Your task to perform on an android device: Clear all items from cart on ebay. Add razer blade to the cart on ebay, then select checkout. Image 0: 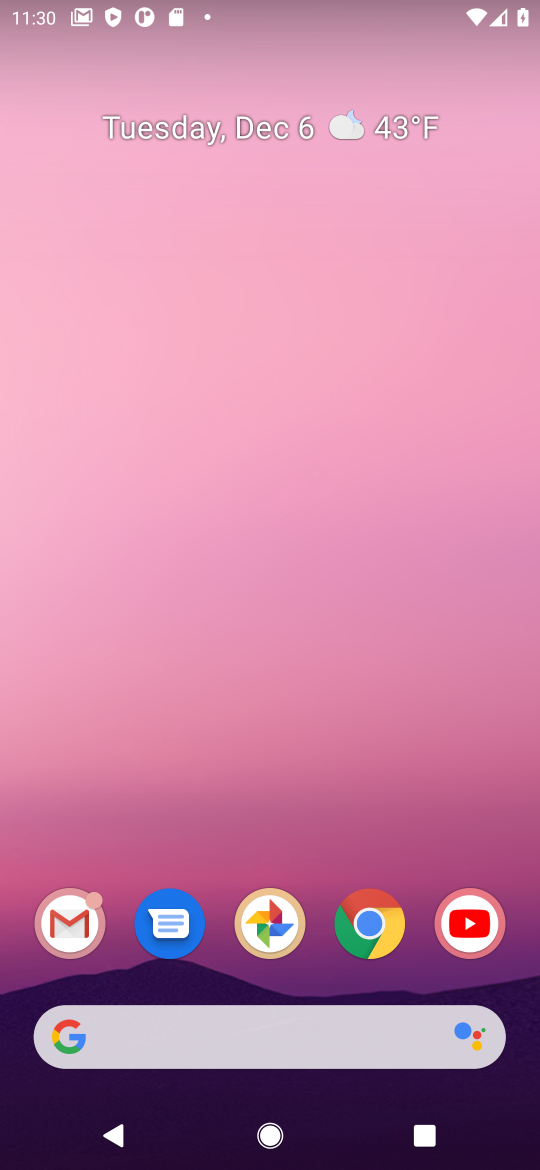
Step 0: click (368, 915)
Your task to perform on an android device: Clear all items from cart on ebay. Add razer blade to the cart on ebay, then select checkout. Image 1: 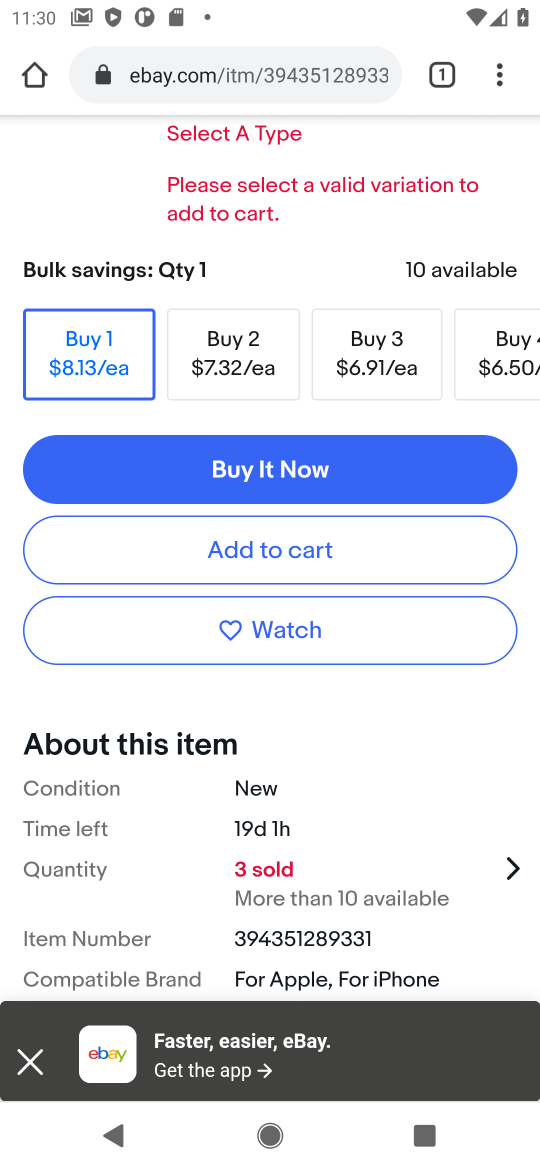
Step 1: drag from (443, 132) to (378, 1026)
Your task to perform on an android device: Clear all items from cart on ebay. Add razer blade to the cart on ebay, then select checkout. Image 2: 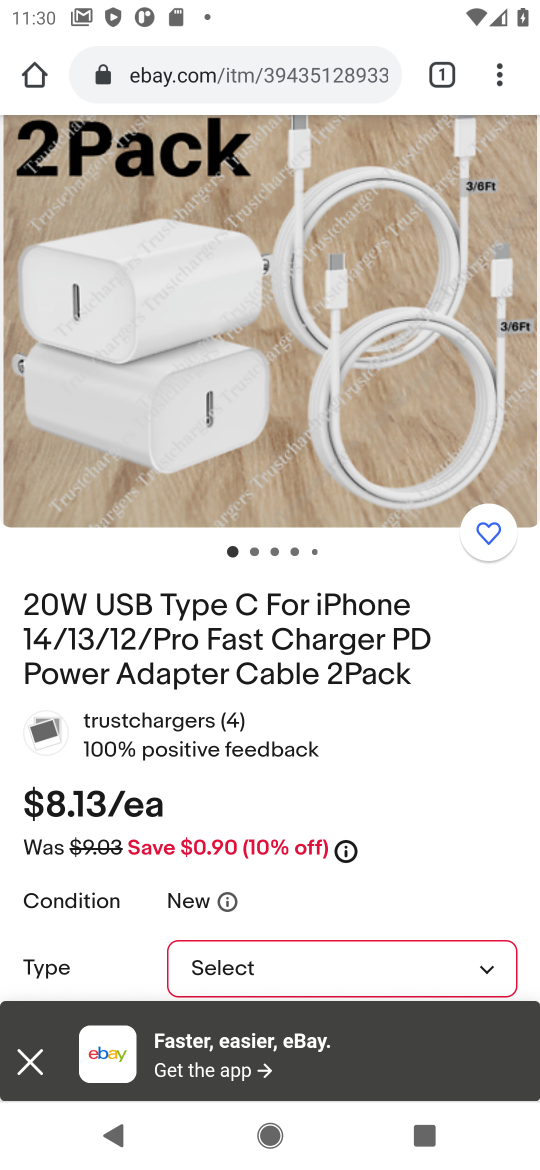
Step 2: drag from (442, 136) to (438, 887)
Your task to perform on an android device: Clear all items from cart on ebay. Add razer blade to the cart on ebay, then select checkout. Image 3: 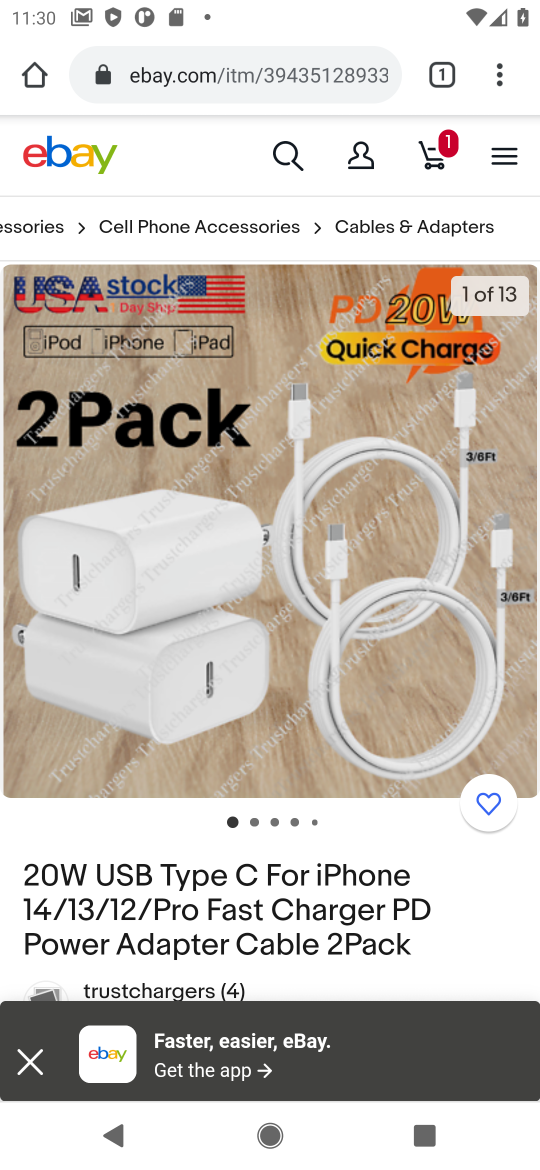
Step 3: click (440, 151)
Your task to perform on an android device: Clear all items from cart on ebay. Add razer blade to the cart on ebay, then select checkout. Image 4: 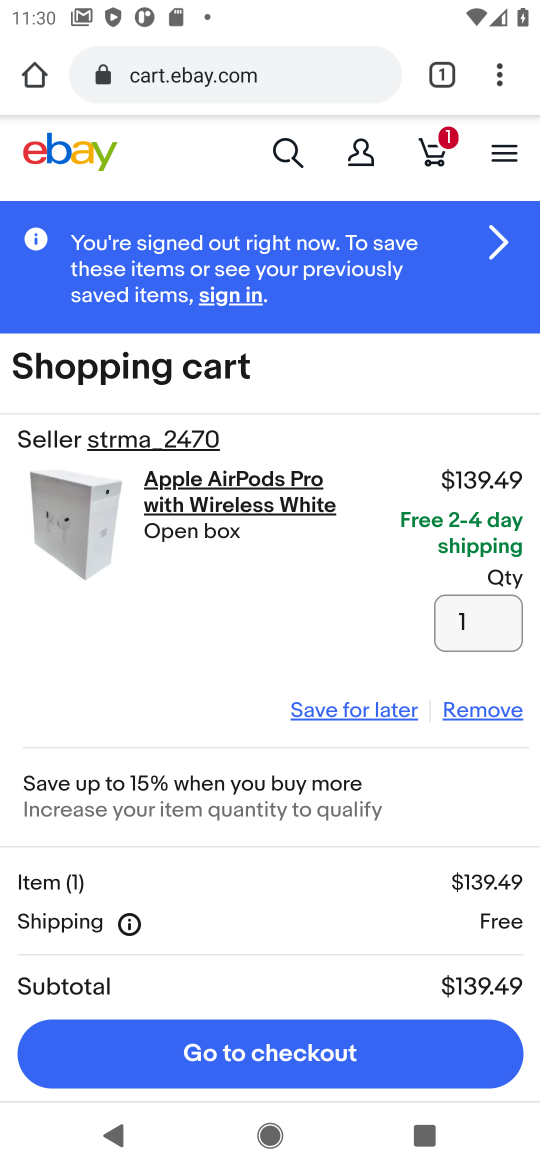
Step 4: click (470, 709)
Your task to perform on an android device: Clear all items from cart on ebay. Add razer blade to the cart on ebay, then select checkout. Image 5: 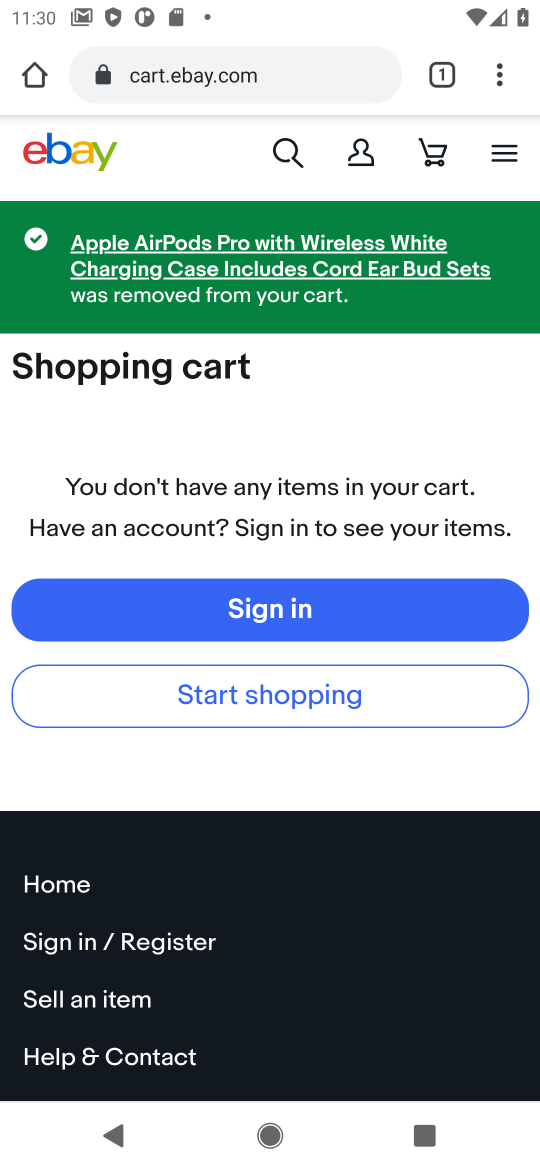
Step 5: click (290, 155)
Your task to perform on an android device: Clear all items from cart on ebay. Add razer blade to the cart on ebay, then select checkout. Image 6: 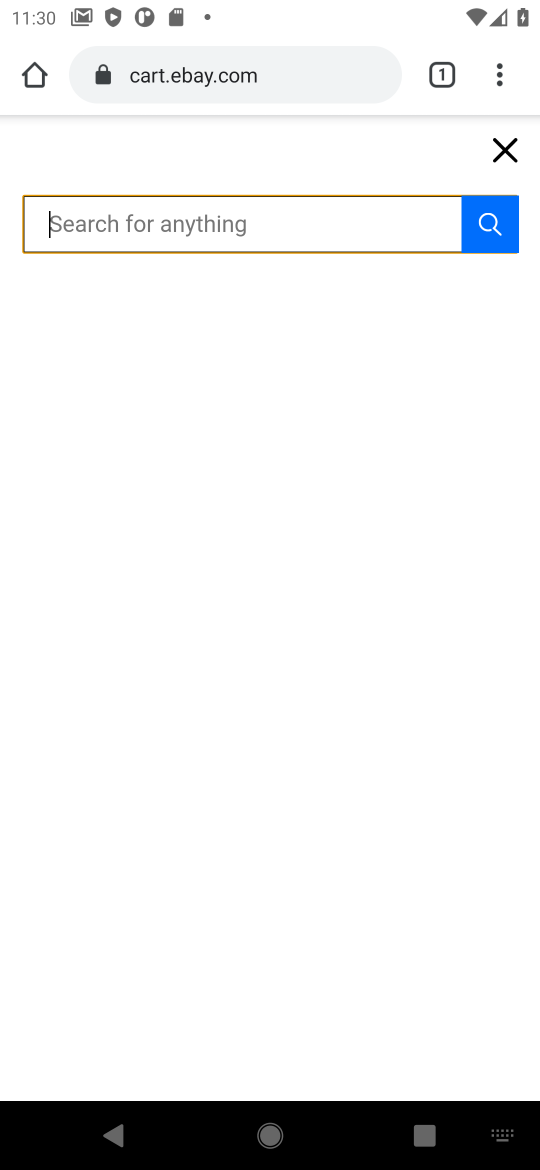
Step 6: type "razer blade"
Your task to perform on an android device: Clear all items from cart on ebay. Add razer blade to the cart on ebay, then select checkout. Image 7: 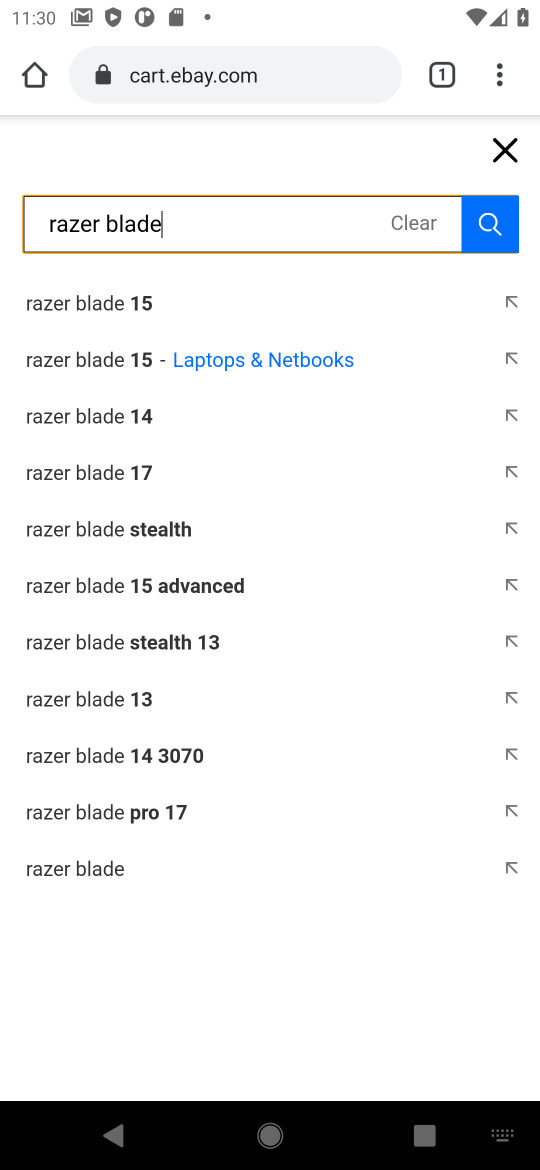
Step 7: click (68, 296)
Your task to perform on an android device: Clear all items from cart on ebay. Add razer blade to the cart on ebay, then select checkout. Image 8: 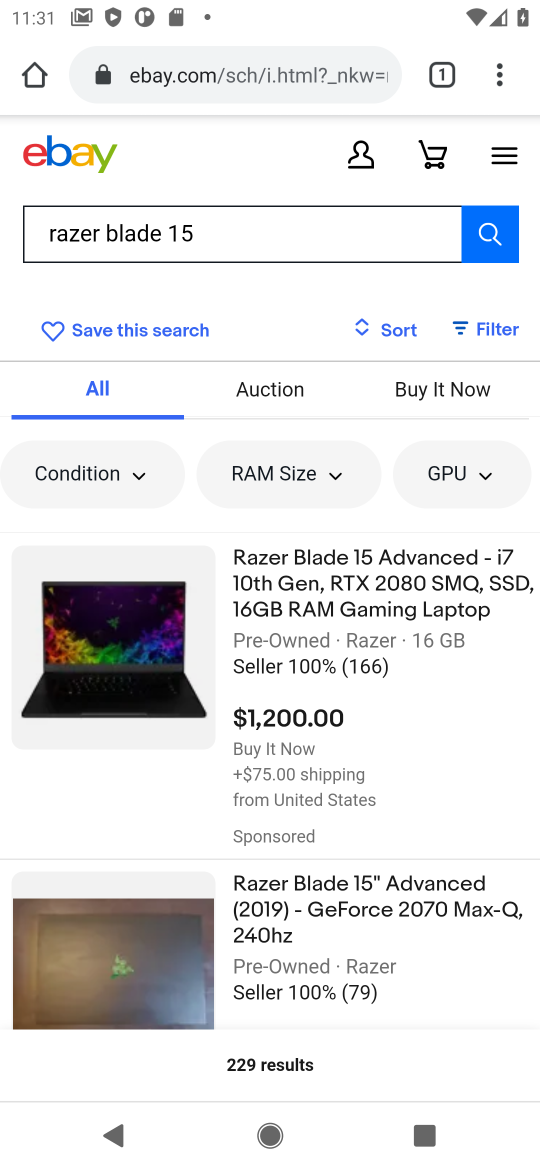
Step 8: click (287, 649)
Your task to perform on an android device: Clear all items from cart on ebay. Add razer blade to the cart on ebay, then select checkout. Image 9: 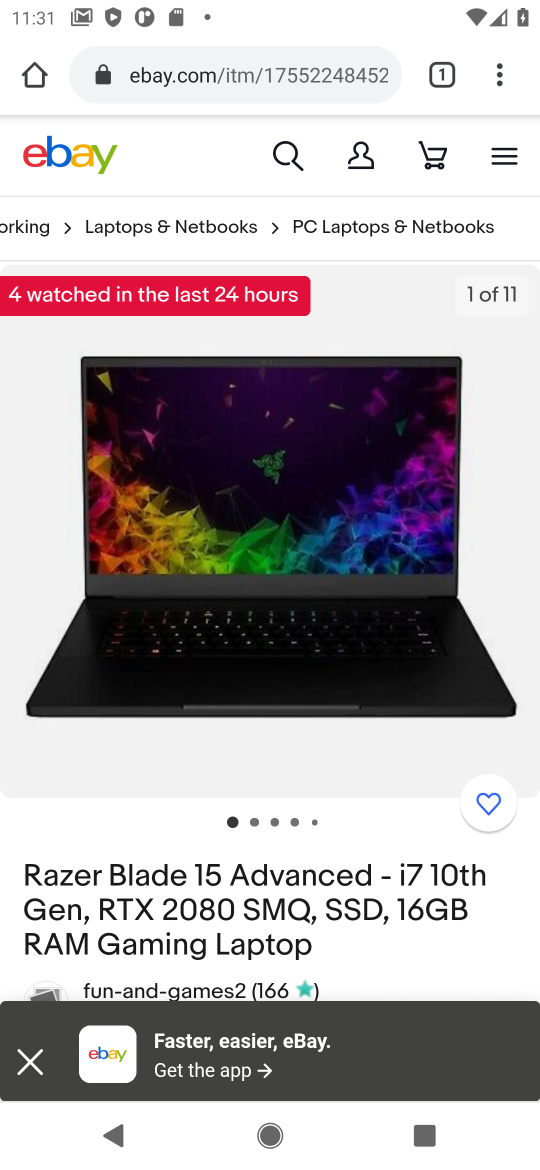
Step 9: drag from (290, 959) to (282, 185)
Your task to perform on an android device: Clear all items from cart on ebay. Add razer blade to the cart on ebay, then select checkout. Image 10: 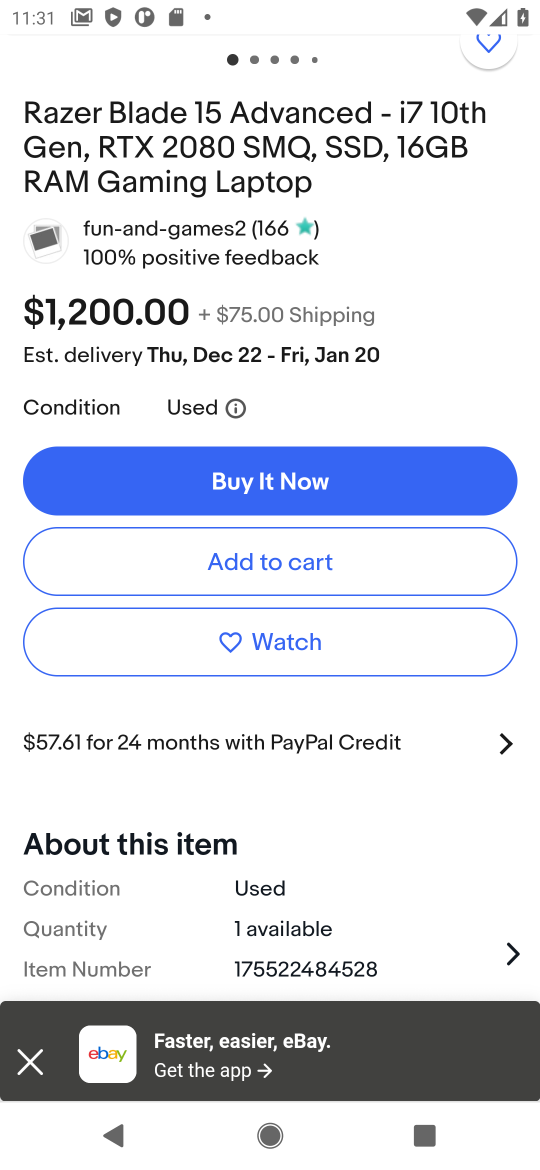
Step 10: click (258, 555)
Your task to perform on an android device: Clear all items from cart on ebay. Add razer blade to the cart on ebay, then select checkout. Image 11: 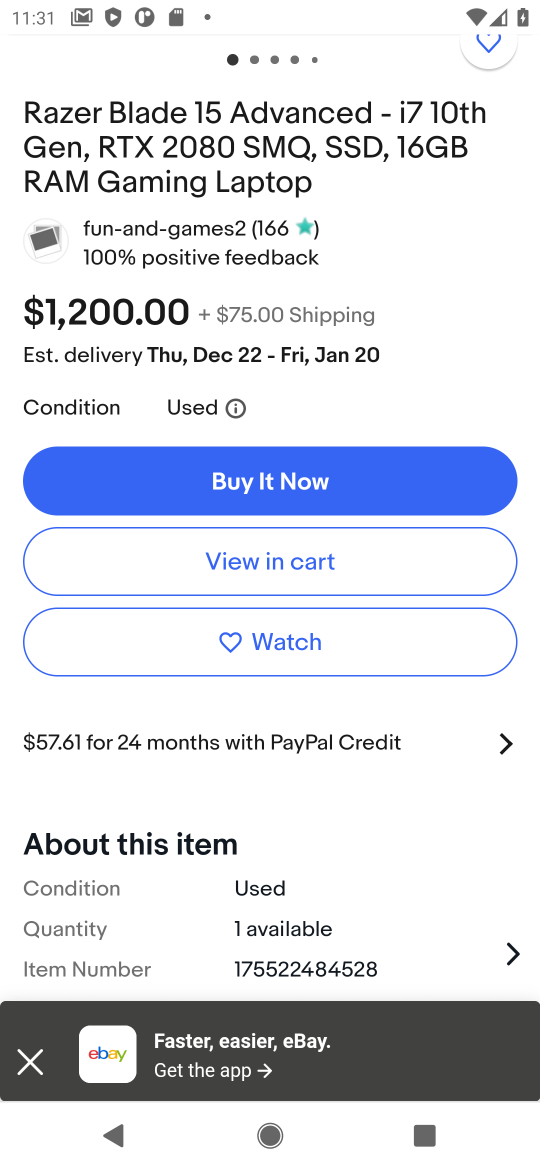
Step 11: click (258, 555)
Your task to perform on an android device: Clear all items from cart on ebay. Add razer blade to the cart on ebay, then select checkout. Image 12: 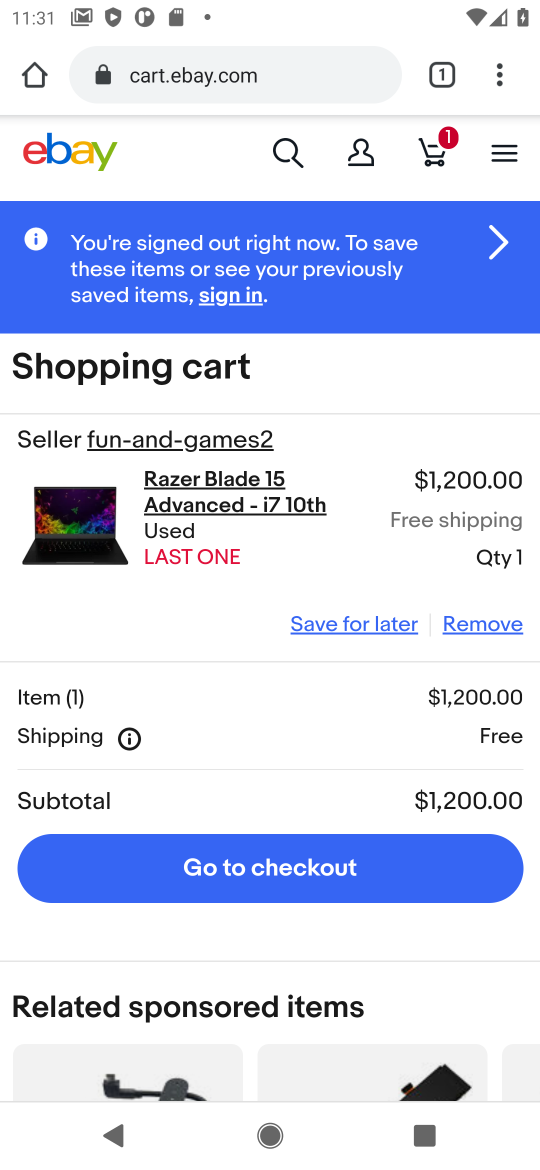
Step 12: click (190, 871)
Your task to perform on an android device: Clear all items from cart on ebay. Add razer blade to the cart on ebay, then select checkout. Image 13: 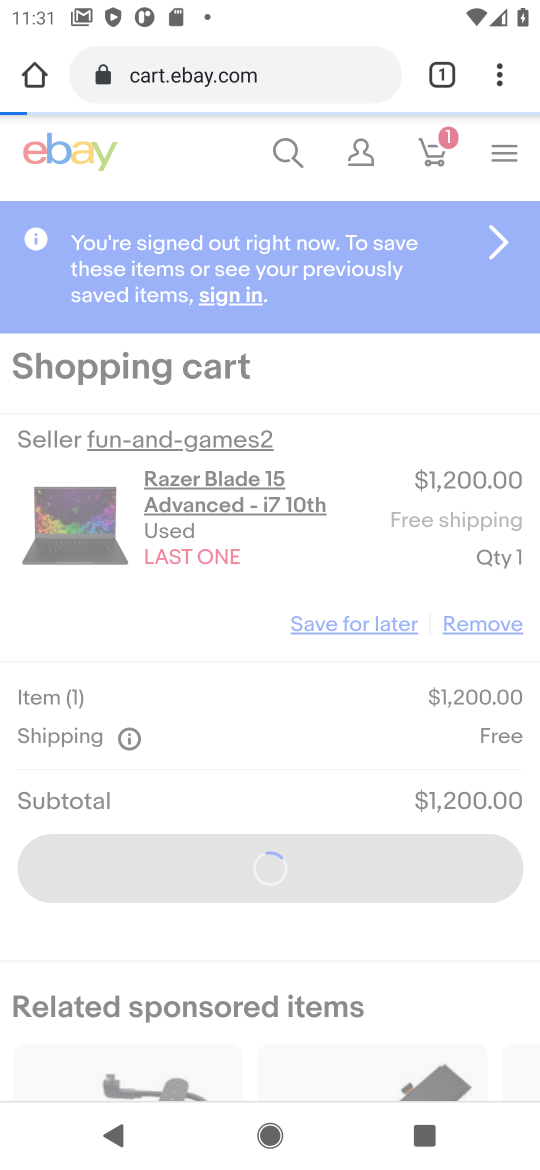
Step 13: task complete